Your task to perform on an android device: What's the weather? Image 0: 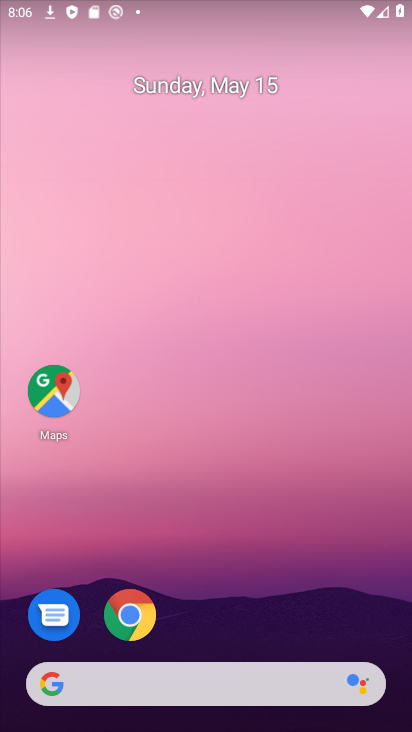
Step 0: drag from (286, 700) to (172, 262)
Your task to perform on an android device: What's the weather? Image 1: 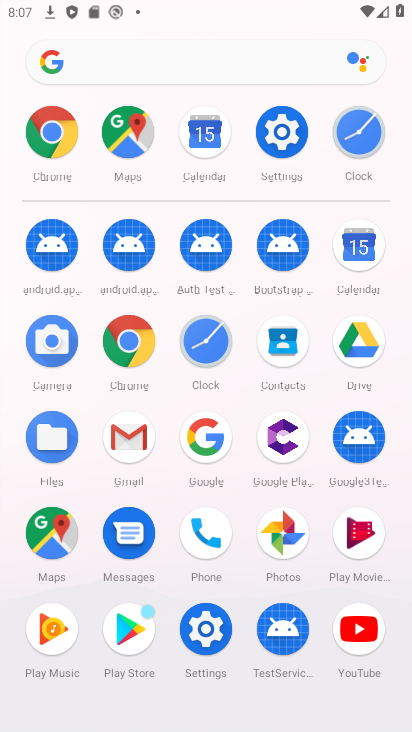
Step 1: click (165, 52)
Your task to perform on an android device: What's the weather? Image 2: 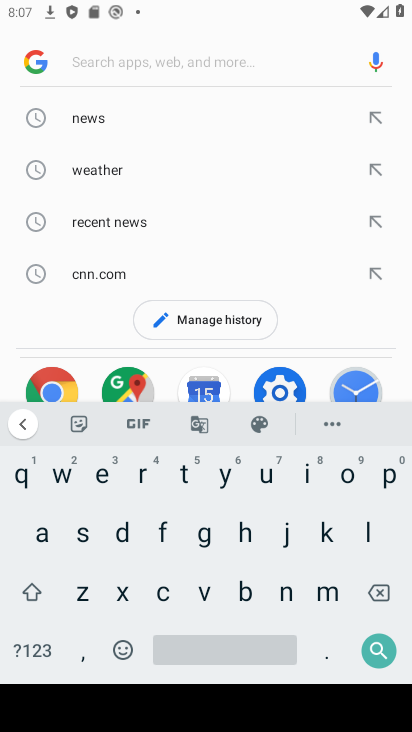
Step 2: click (140, 175)
Your task to perform on an android device: What's the weather? Image 3: 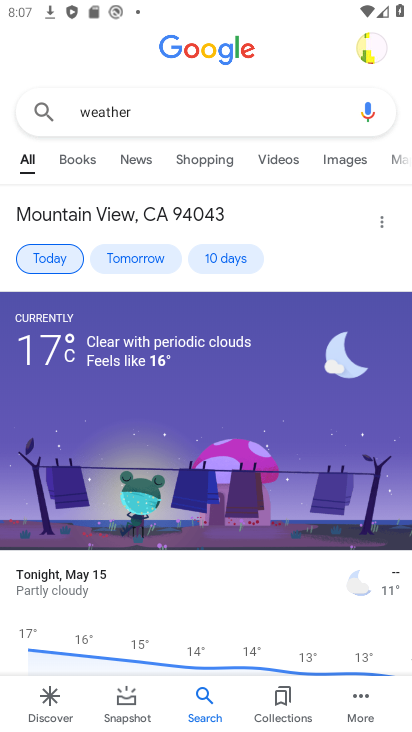
Step 3: task complete